Your task to perform on an android device: Open location settings Image 0: 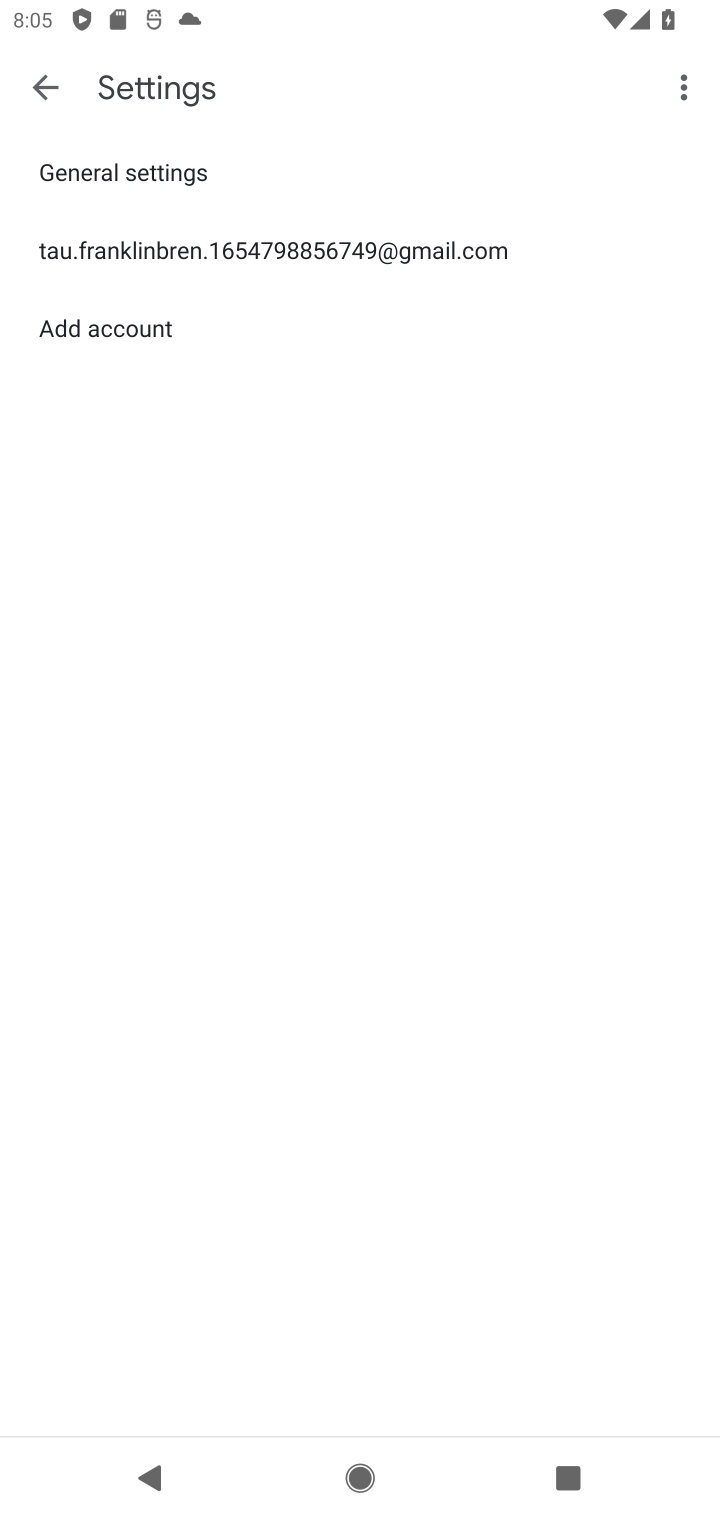
Step 0: press home button
Your task to perform on an android device: Open location settings Image 1: 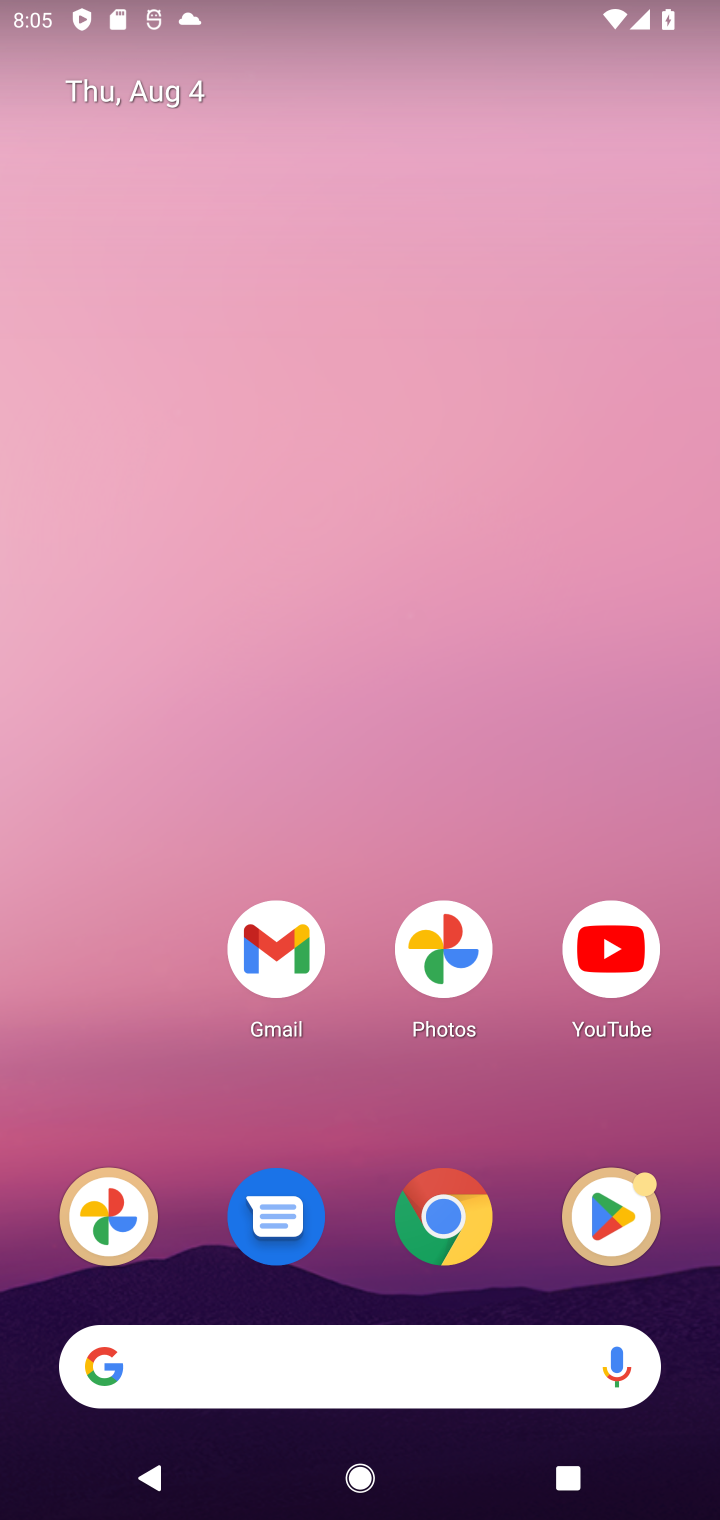
Step 1: drag from (360, 850) to (360, 190)
Your task to perform on an android device: Open location settings Image 2: 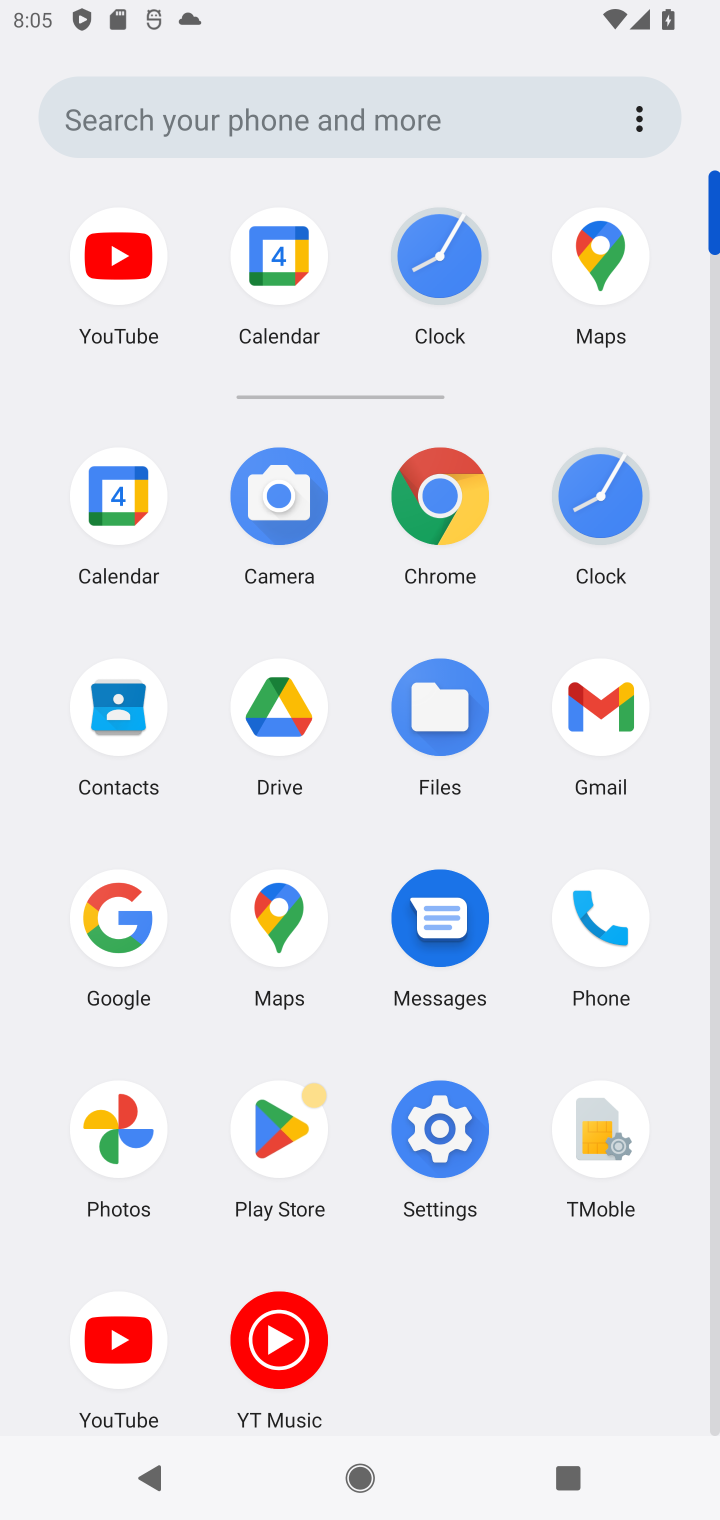
Step 2: click (441, 1136)
Your task to perform on an android device: Open location settings Image 3: 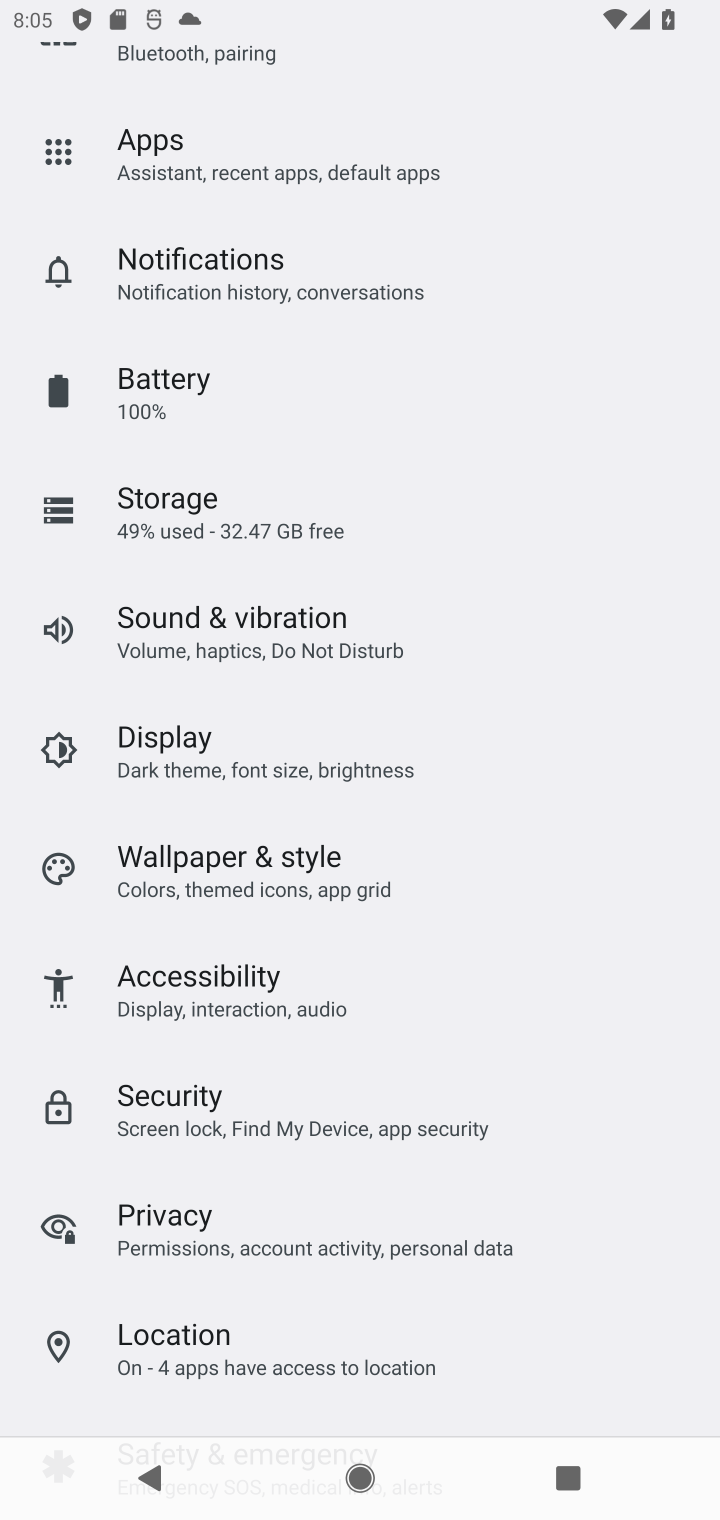
Step 3: click (152, 1354)
Your task to perform on an android device: Open location settings Image 4: 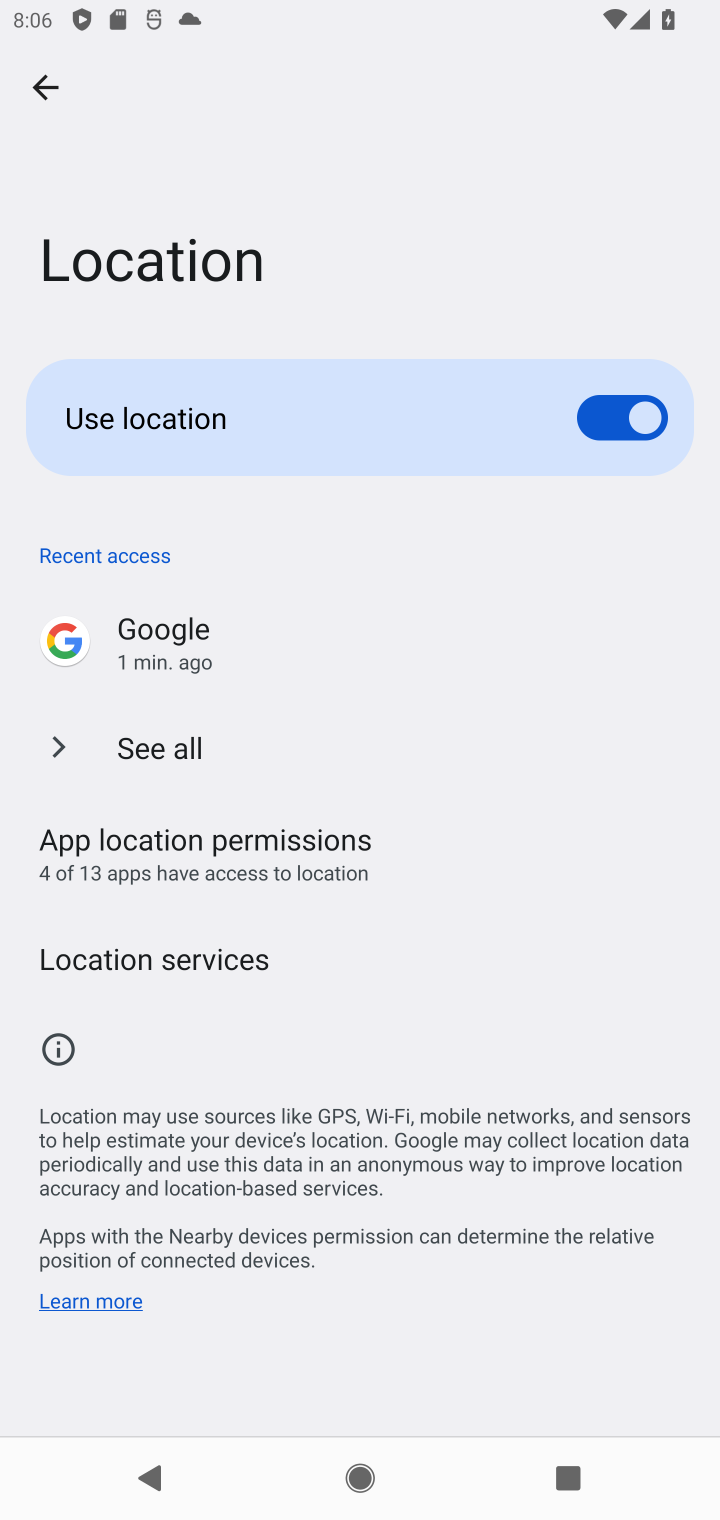
Step 4: task complete